Your task to perform on an android device: snooze an email in the gmail app Image 0: 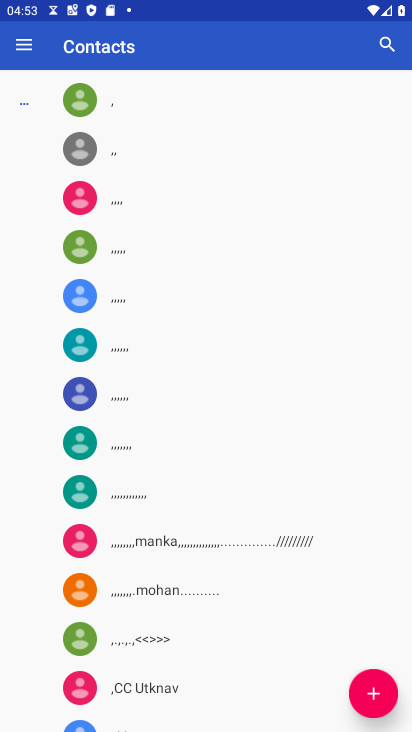
Step 0: press home button
Your task to perform on an android device: snooze an email in the gmail app Image 1: 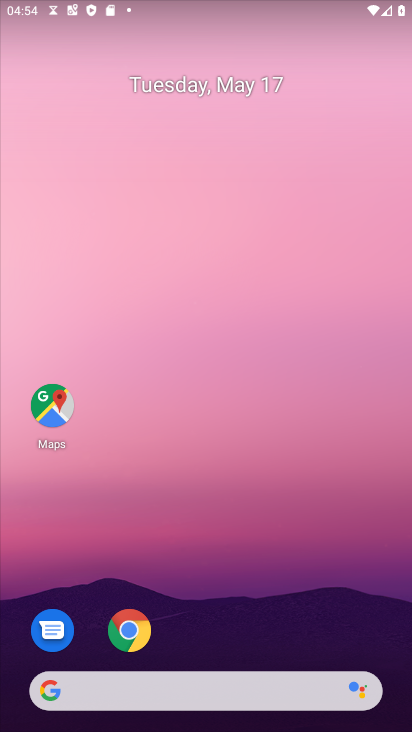
Step 1: drag from (243, 597) to (241, 105)
Your task to perform on an android device: snooze an email in the gmail app Image 2: 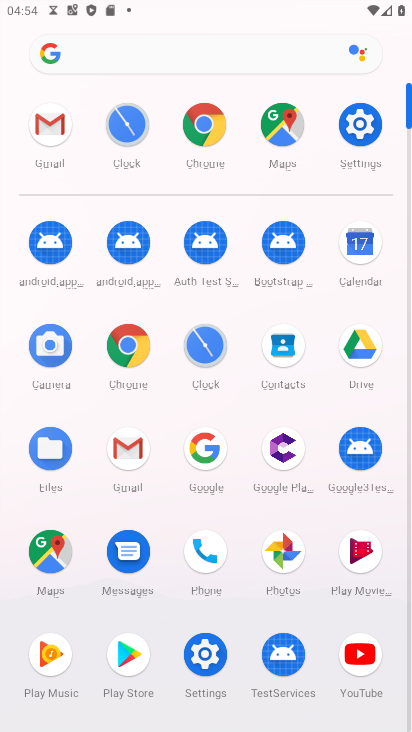
Step 2: click (119, 452)
Your task to perform on an android device: snooze an email in the gmail app Image 3: 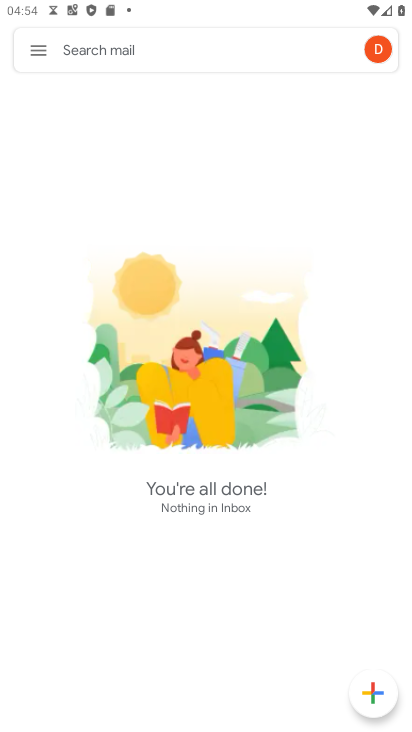
Step 3: task complete